Your task to perform on an android device: toggle javascript in the chrome app Image 0: 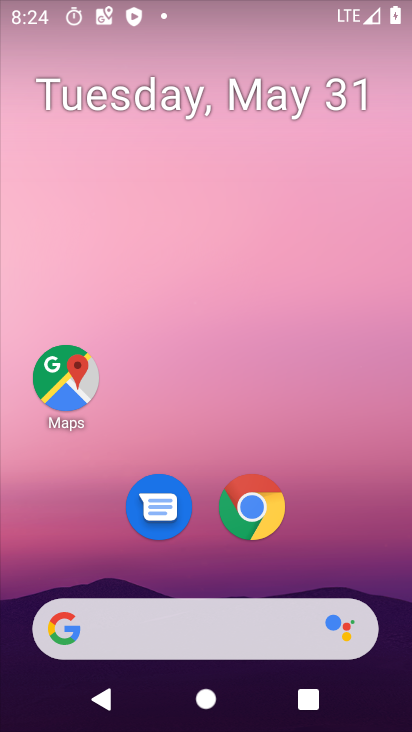
Step 0: click (253, 521)
Your task to perform on an android device: toggle javascript in the chrome app Image 1: 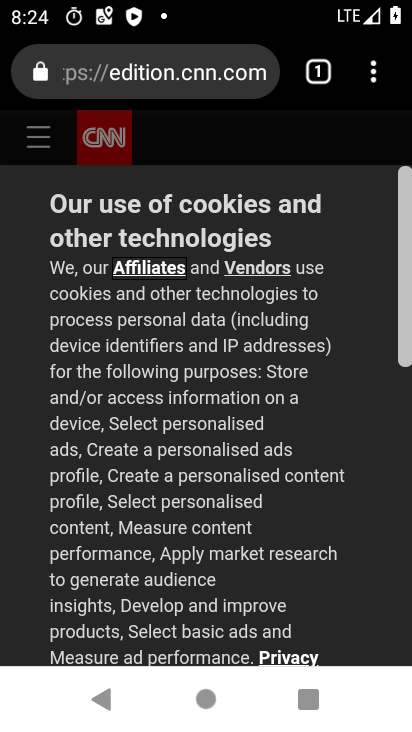
Step 1: click (374, 74)
Your task to perform on an android device: toggle javascript in the chrome app Image 2: 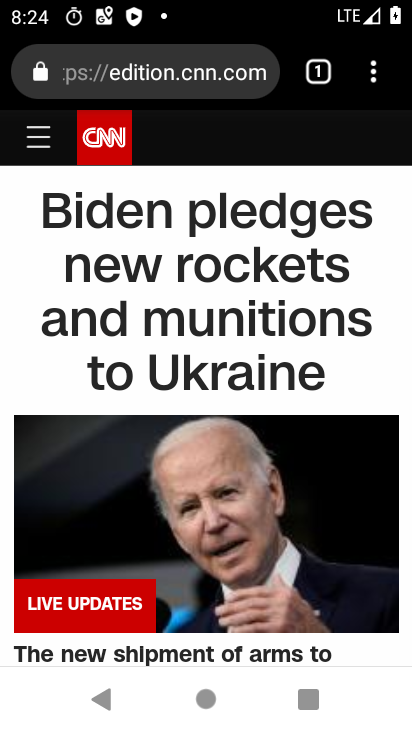
Step 2: click (378, 83)
Your task to perform on an android device: toggle javascript in the chrome app Image 3: 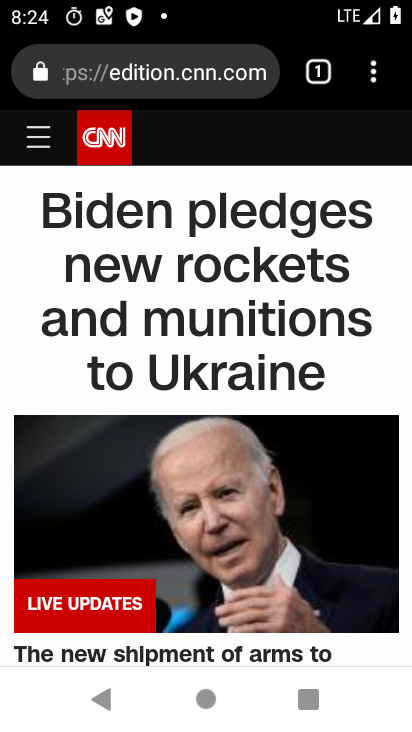
Step 3: click (378, 83)
Your task to perform on an android device: toggle javascript in the chrome app Image 4: 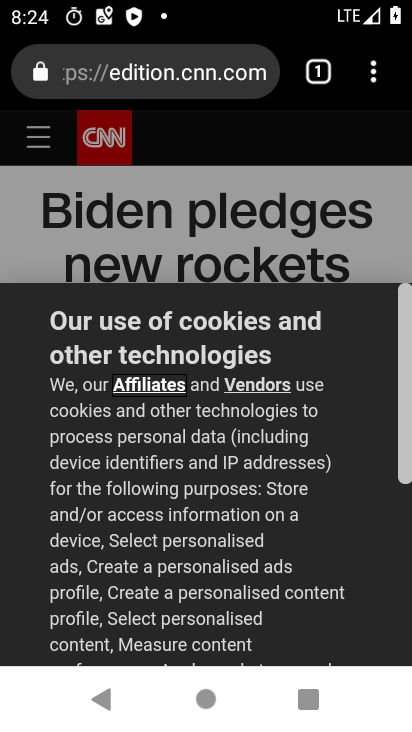
Step 4: click (387, 77)
Your task to perform on an android device: toggle javascript in the chrome app Image 5: 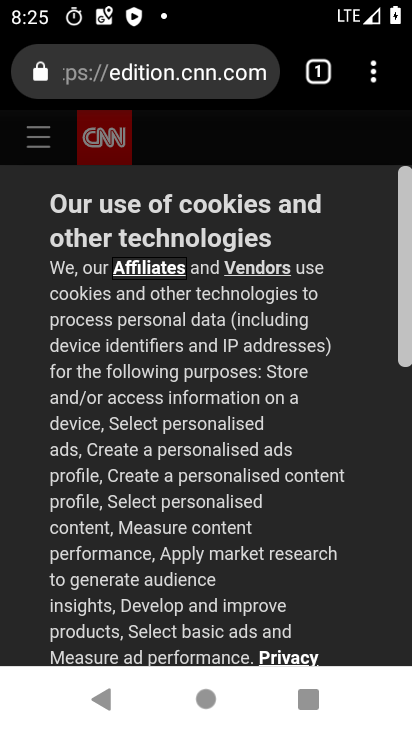
Step 5: click (387, 76)
Your task to perform on an android device: toggle javascript in the chrome app Image 6: 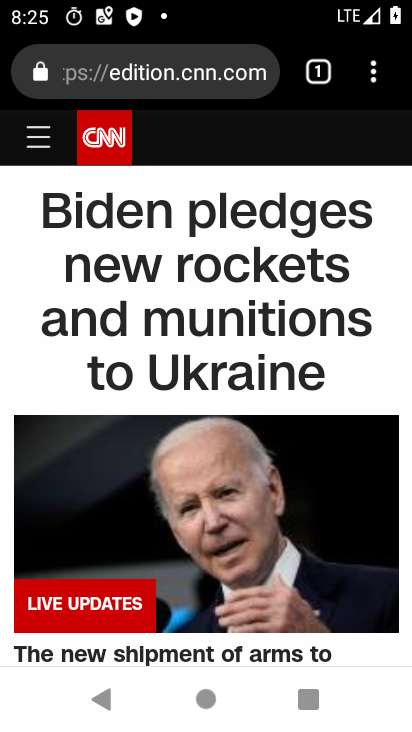
Step 6: click (382, 70)
Your task to perform on an android device: toggle javascript in the chrome app Image 7: 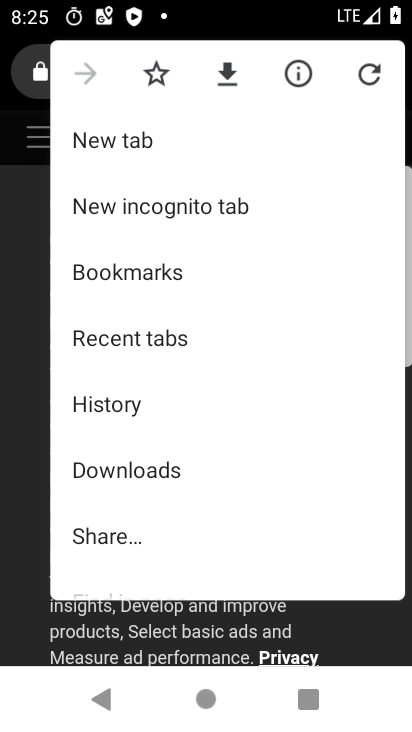
Step 7: drag from (36, 582) to (215, 231)
Your task to perform on an android device: toggle javascript in the chrome app Image 8: 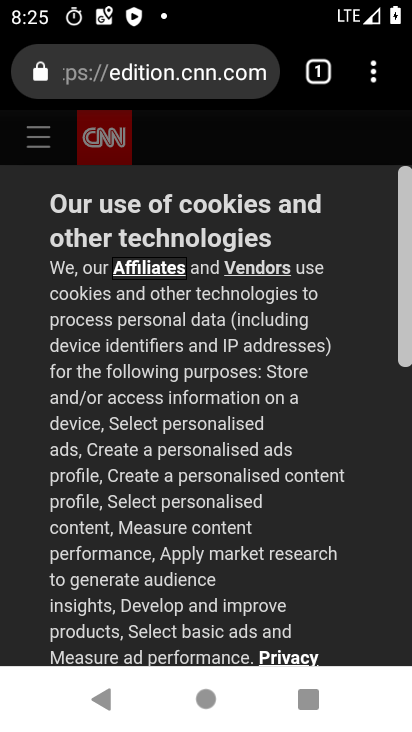
Step 8: click (380, 74)
Your task to perform on an android device: toggle javascript in the chrome app Image 9: 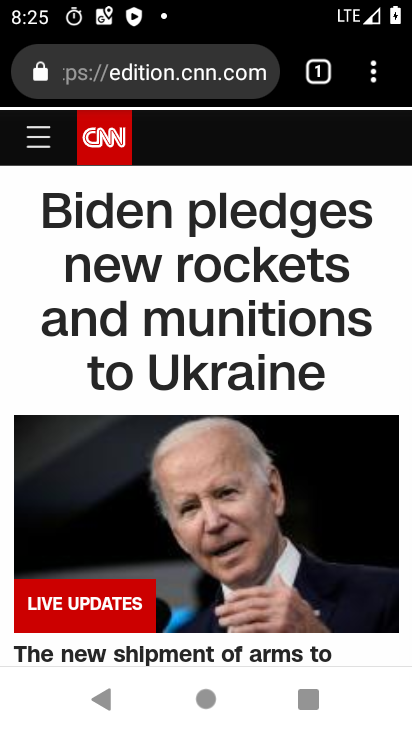
Step 9: click (384, 77)
Your task to perform on an android device: toggle javascript in the chrome app Image 10: 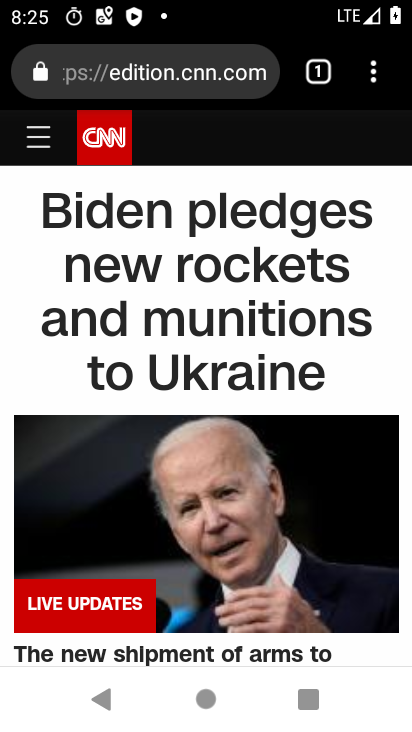
Step 10: click (379, 75)
Your task to perform on an android device: toggle javascript in the chrome app Image 11: 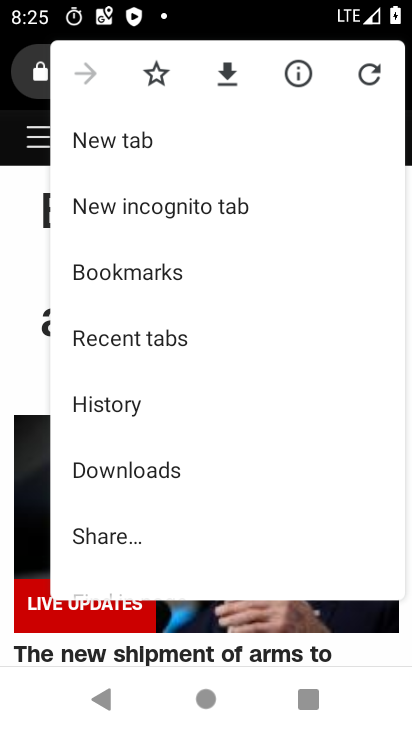
Step 11: drag from (91, 456) to (187, 80)
Your task to perform on an android device: toggle javascript in the chrome app Image 12: 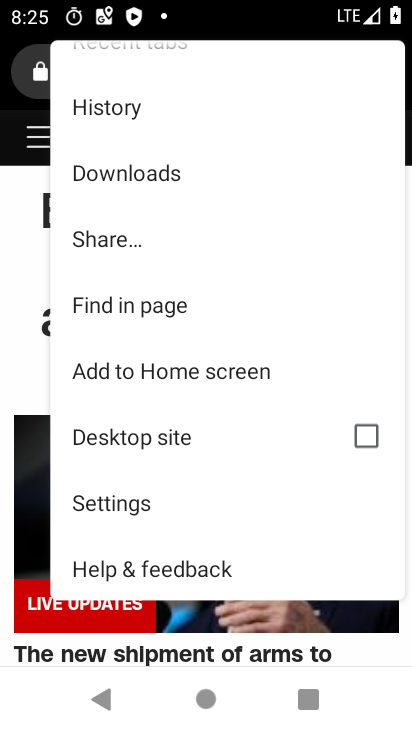
Step 12: click (133, 502)
Your task to perform on an android device: toggle javascript in the chrome app Image 13: 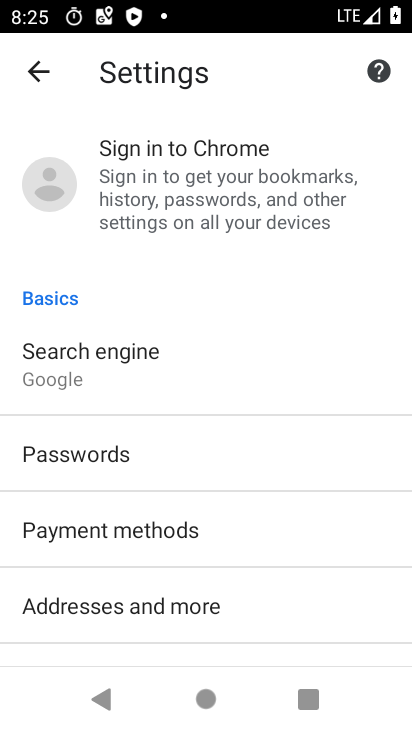
Step 13: drag from (12, 517) to (160, 160)
Your task to perform on an android device: toggle javascript in the chrome app Image 14: 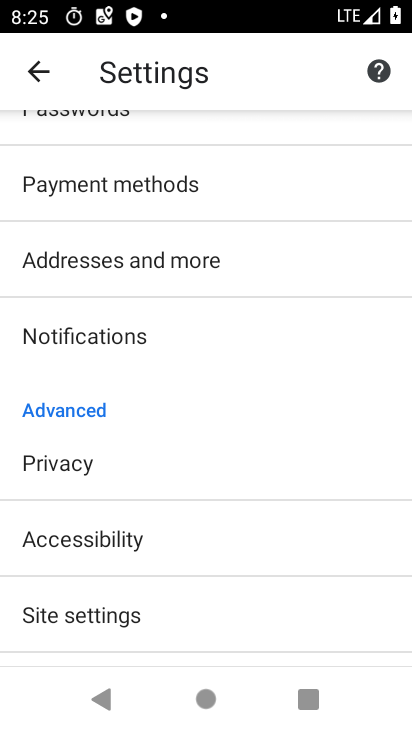
Step 14: click (49, 621)
Your task to perform on an android device: toggle javascript in the chrome app Image 15: 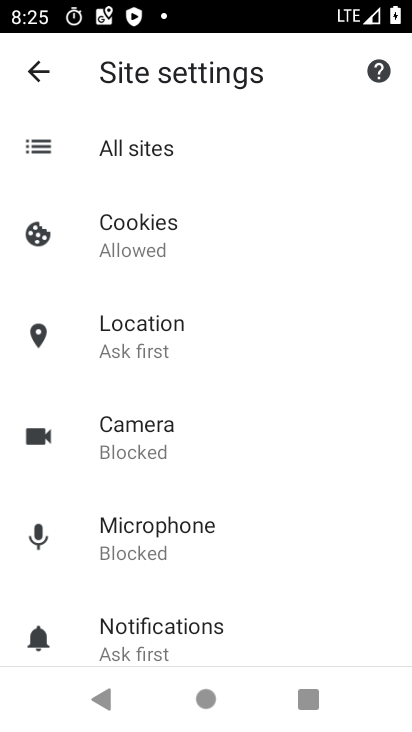
Step 15: drag from (28, 518) to (176, 210)
Your task to perform on an android device: toggle javascript in the chrome app Image 16: 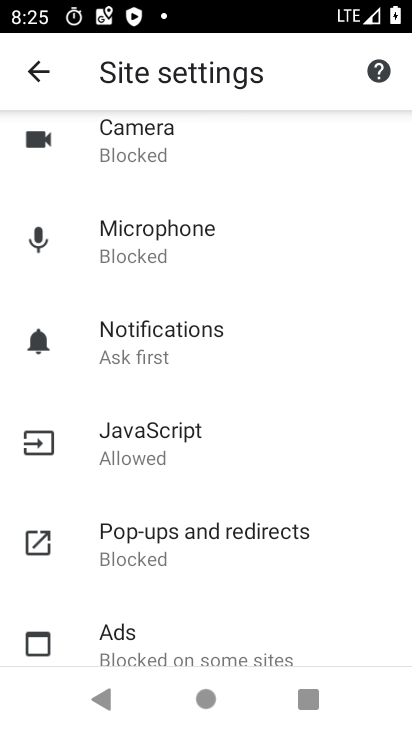
Step 16: click (110, 450)
Your task to perform on an android device: toggle javascript in the chrome app Image 17: 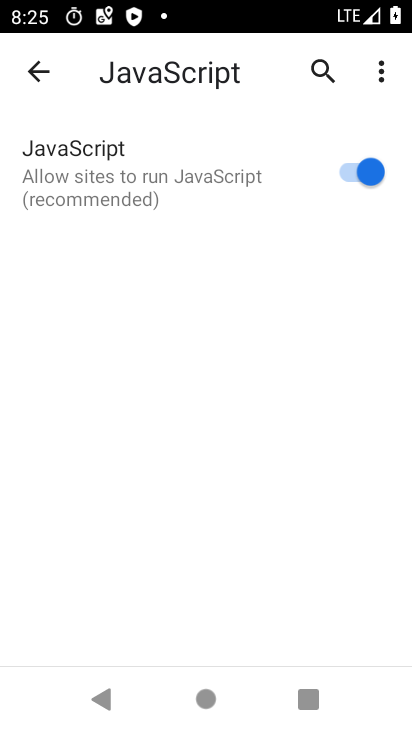
Step 17: click (375, 181)
Your task to perform on an android device: toggle javascript in the chrome app Image 18: 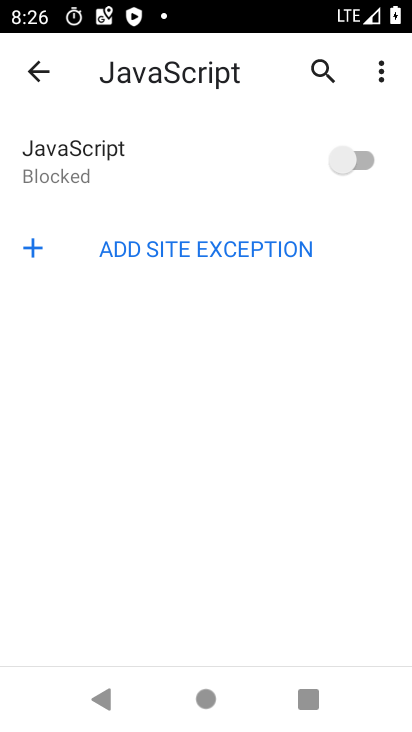
Step 18: task complete